Your task to perform on an android device: change keyboard looks Image 0: 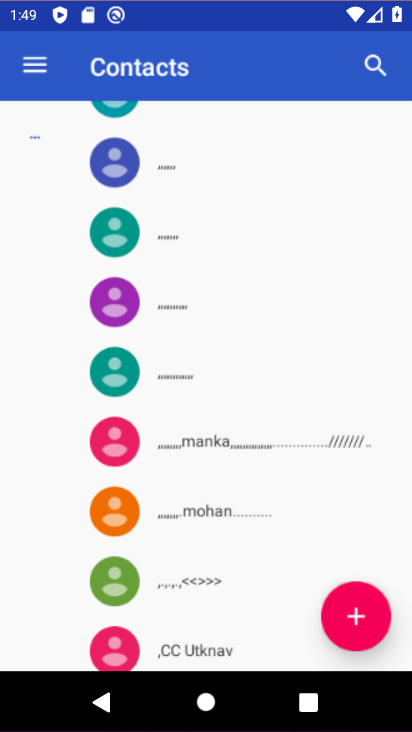
Step 0: drag from (192, 529) to (197, 139)
Your task to perform on an android device: change keyboard looks Image 1: 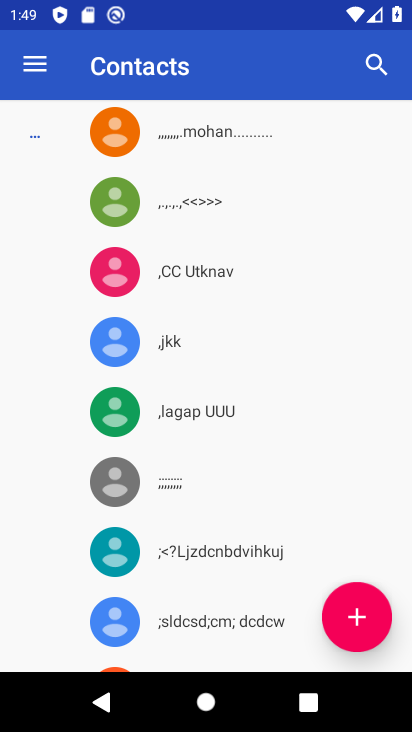
Step 1: press home button
Your task to perform on an android device: change keyboard looks Image 2: 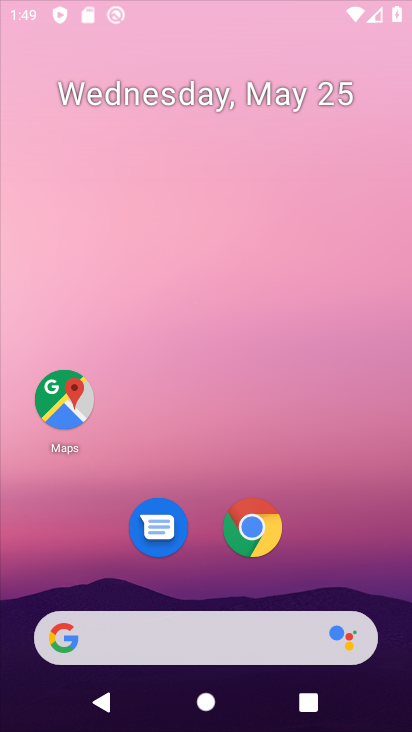
Step 2: drag from (233, 581) to (323, 159)
Your task to perform on an android device: change keyboard looks Image 3: 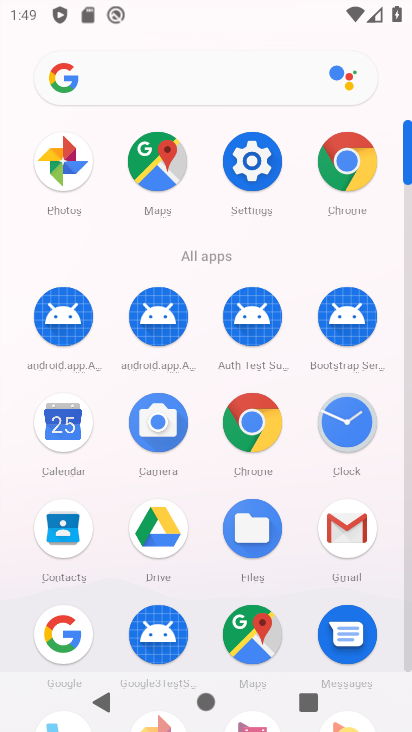
Step 3: click (256, 153)
Your task to perform on an android device: change keyboard looks Image 4: 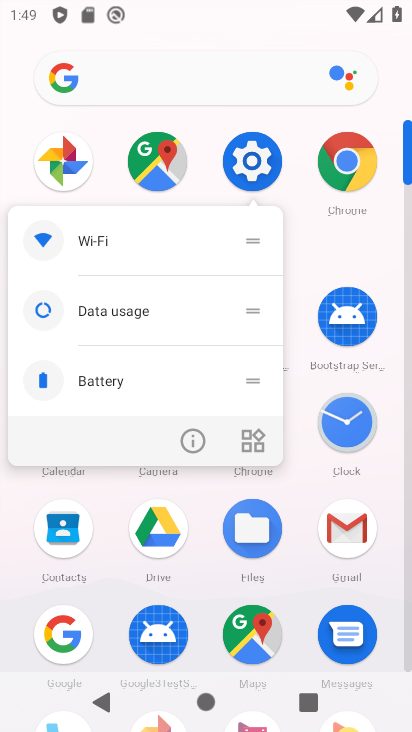
Step 4: click (181, 448)
Your task to perform on an android device: change keyboard looks Image 5: 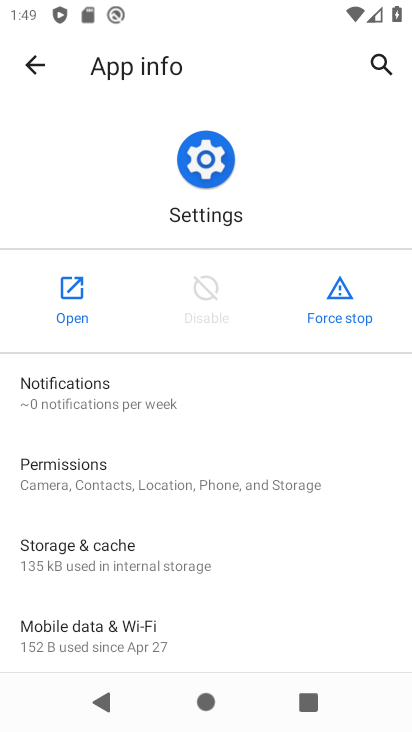
Step 5: click (80, 294)
Your task to perform on an android device: change keyboard looks Image 6: 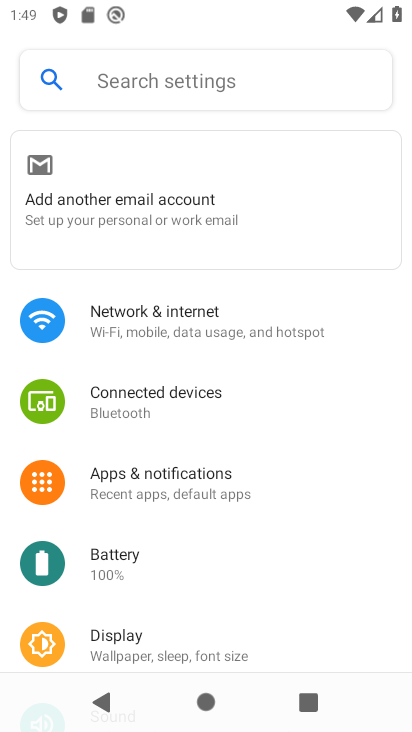
Step 6: drag from (174, 550) to (228, 11)
Your task to perform on an android device: change keyboard looks Image 7: 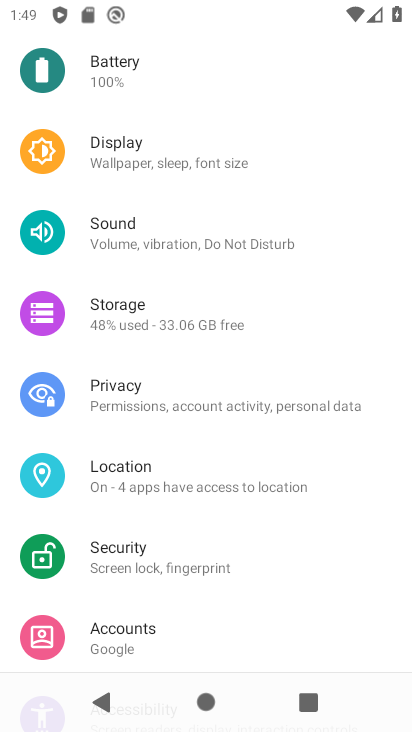
Step 7: drag from (230, 485) to (242, 178)
Your task to perform on an android device: change keyboard looks Image 8: 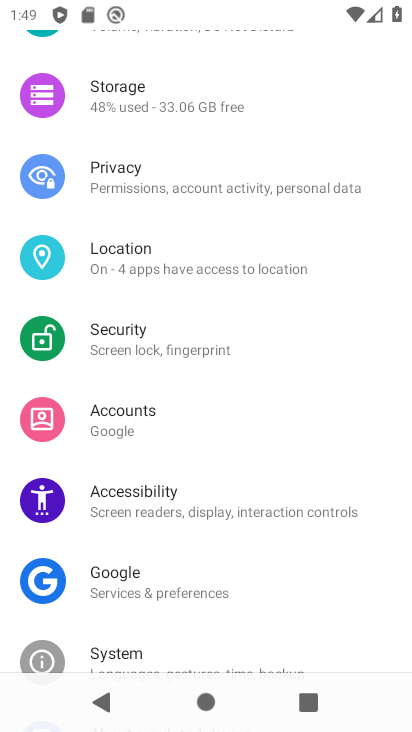
Step 8: drag from (153, 482) to (288, 15)
Your task to perform on an android device: change keyboard looks Image 9: 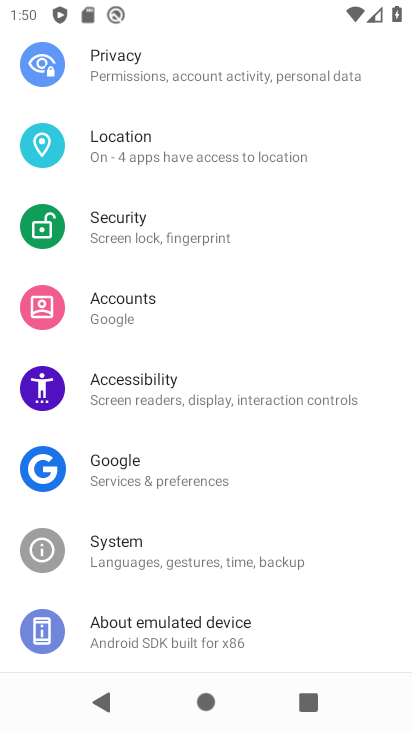
Step 9: click (179, 564)
Your task to perform on an android device: change keyboard looks Image 10: 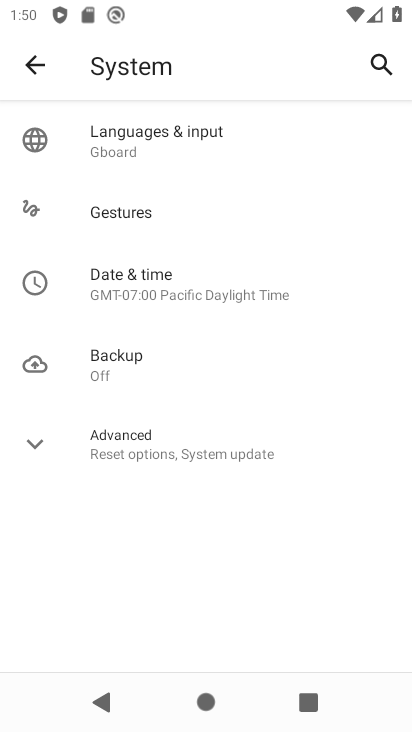
Step 10: click (177, 142)
Your task to perform on an android device: change keyboard looks Image 11: 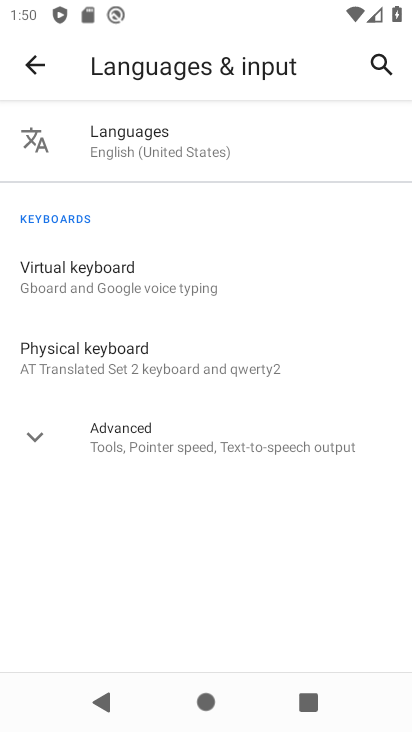
Step 11: click (127, 270)
Your task to perform on an android device: change keyboard looks Image 12: 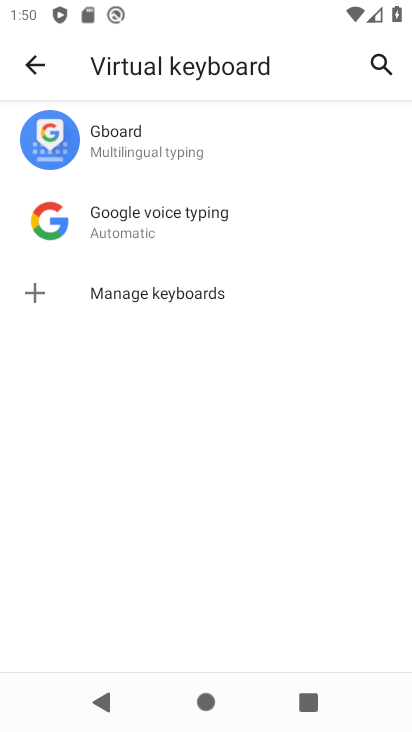
Step 12: click (189, 153)
Your task to perform on an android device: change keyboard looks Image 13: 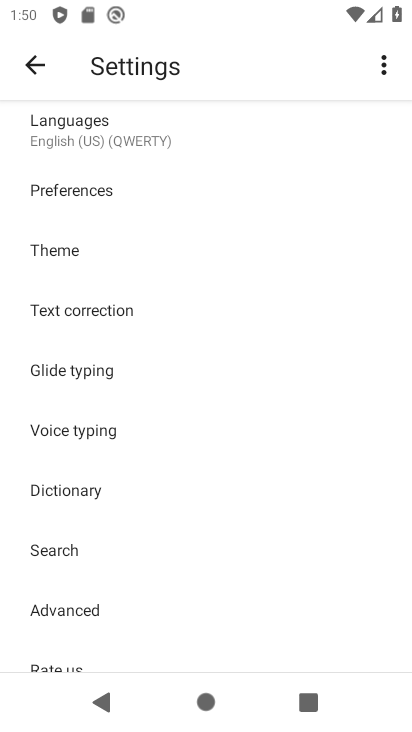
Step 13: click (66, 248)
Your task to perform on an android device: change keyboard looks Image 14: 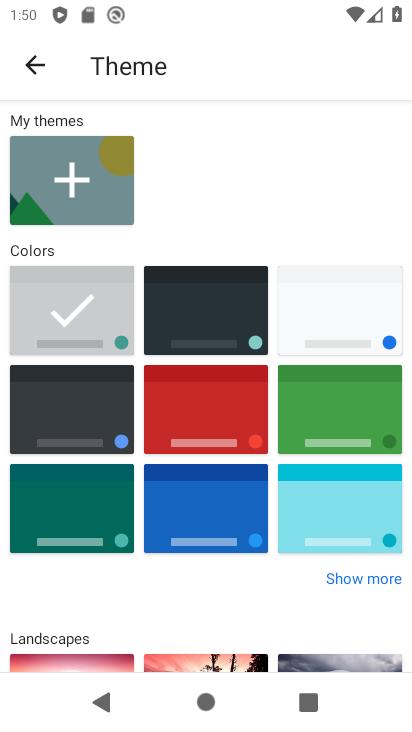
Step 14: click (210, 297)
Your task to perform on an android device: change keyboard looks Image 15: 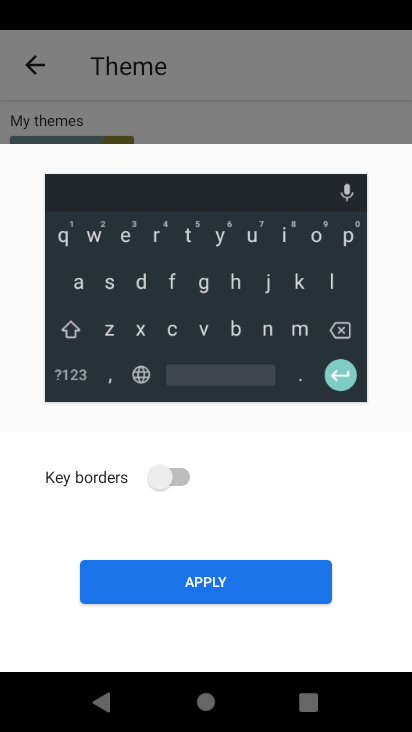
Step 15: click (162, 577)
Your task to perform on an android device: change keyboard looks Image 16: 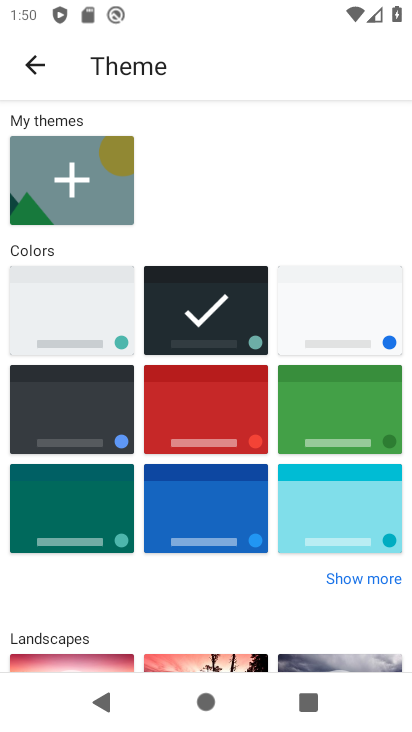
Step 16: task complete